Your task to perform on an android device: Open settings Image 0: 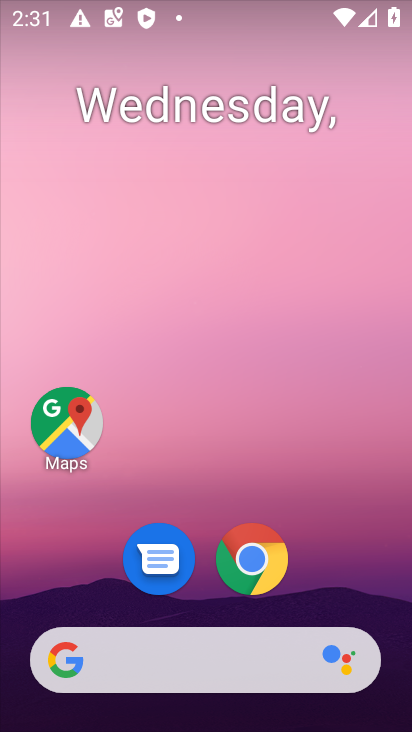
Step 0: drag from (194, 611) to (180, 39)
Your task to perform on an android device: Open settings Image 1: 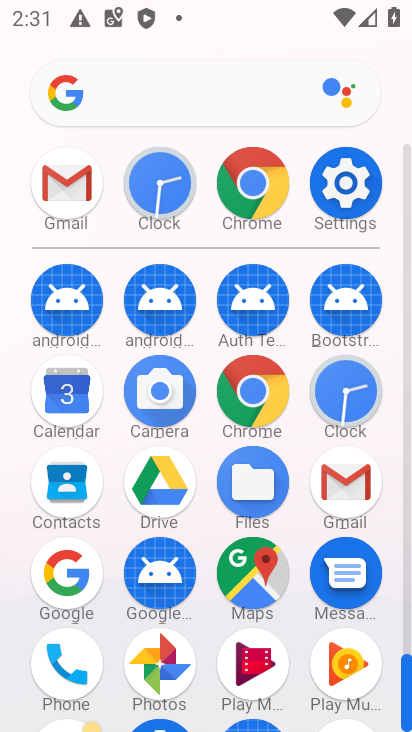
Step 1: click (347, 174)
Your task to perform on an android device: Open settings Image 2: 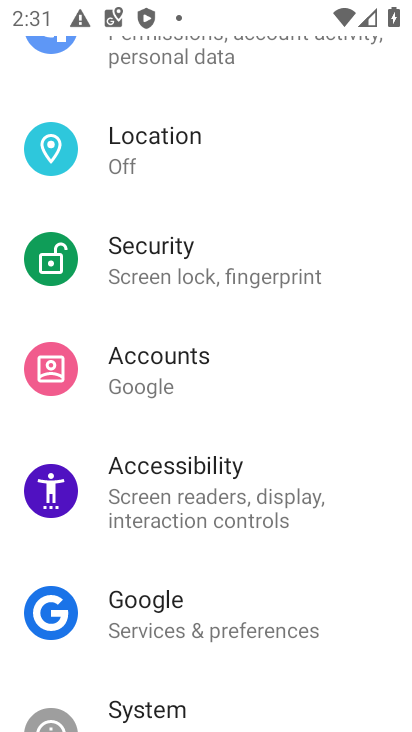
Step 2: task complete